Your task to perform on an android device: When is my next meeting? Image 0: 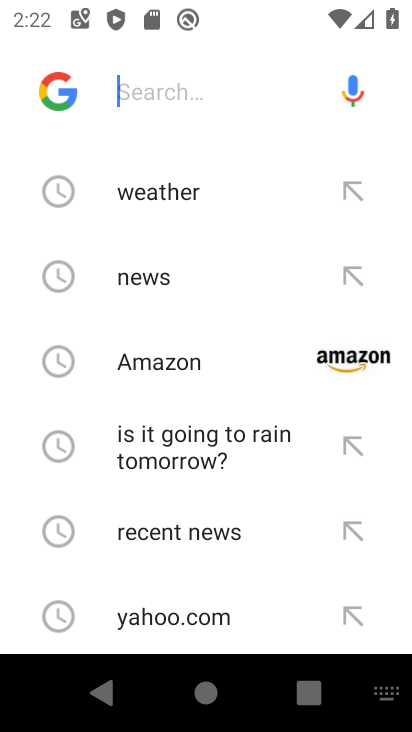
Step 0: press home button
Your task to perform on an android device: When is my next meeting? Image 1: 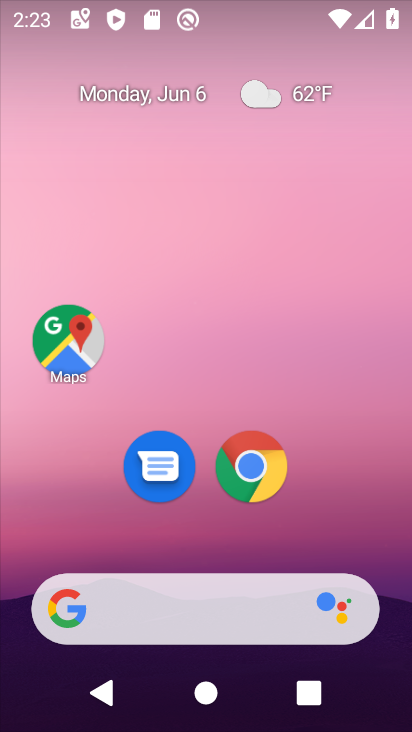
Step 1: drag from (398, 567) to (320, 109)
Your task to perform on an android device: When is my next meeting? Image 2: 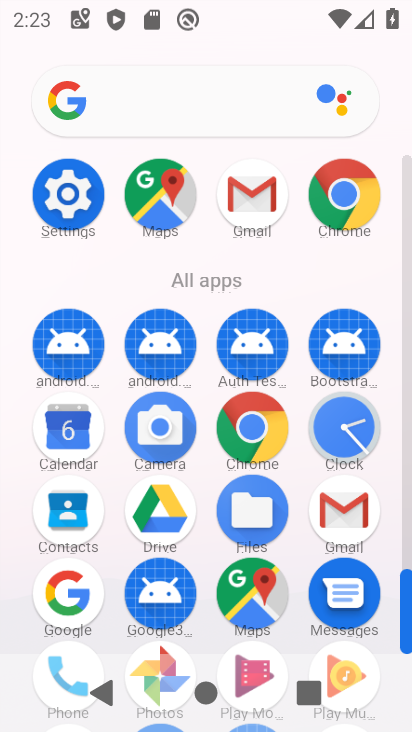
Step 2: click (70, 424)
Your task to perform on an android device: When is my next meeting? Image 3: 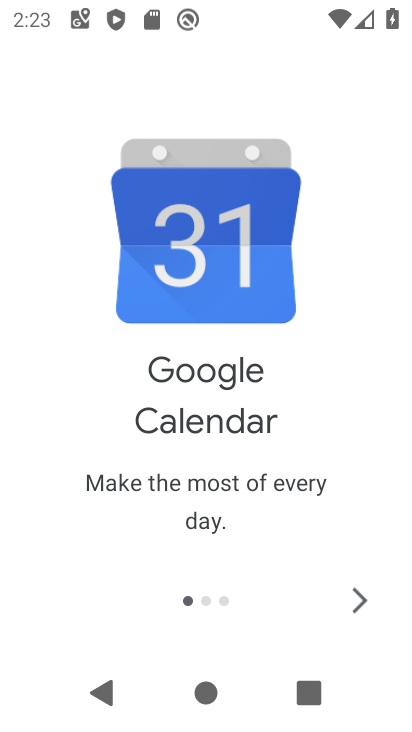
Step 3: click (365, 595)
Your task to perform on an android device: When is my next meeting? Image 4: 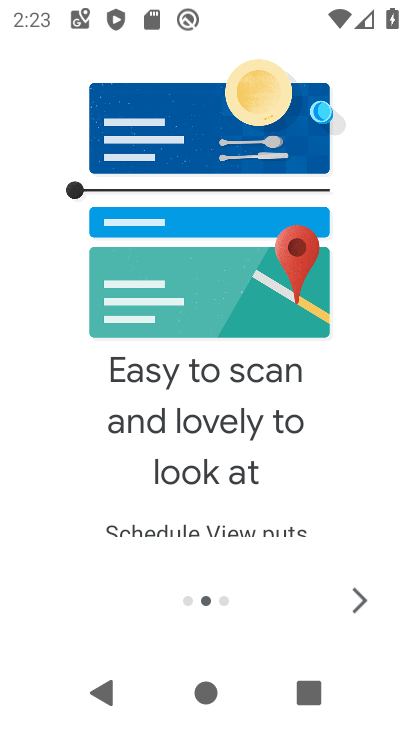
Step 4: click (365, 595)
Your task to perform on an android device: When is my next meeting? Image 5: 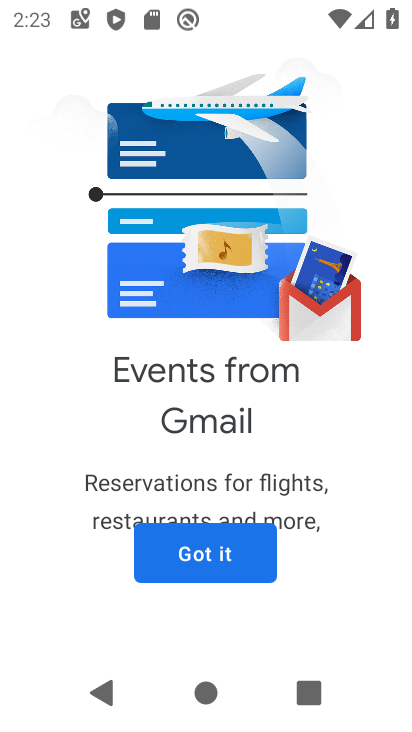
Step 5: click (245, 565)
Your task to perform on an android device: When is my next meeting? Image 6: 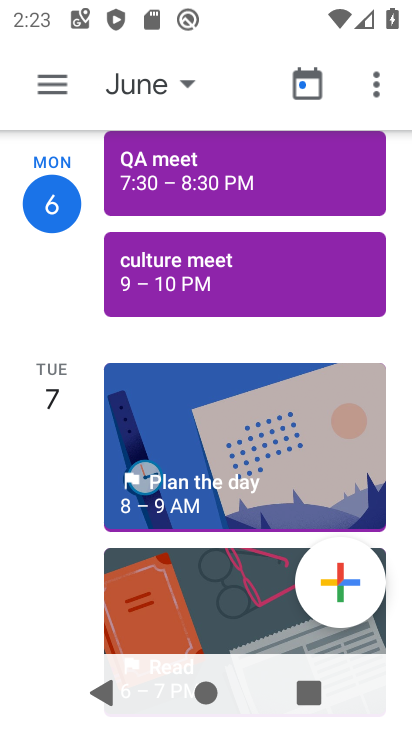
Step 6: task complete